Your task to perform on an android device: Open internet settings Image 0: 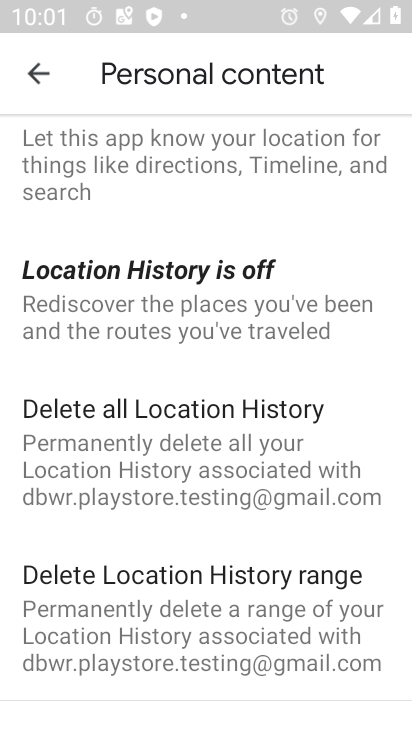
Step 0: click (24, 76)
Your task to perform on an android device: Open internet settings Image 1: 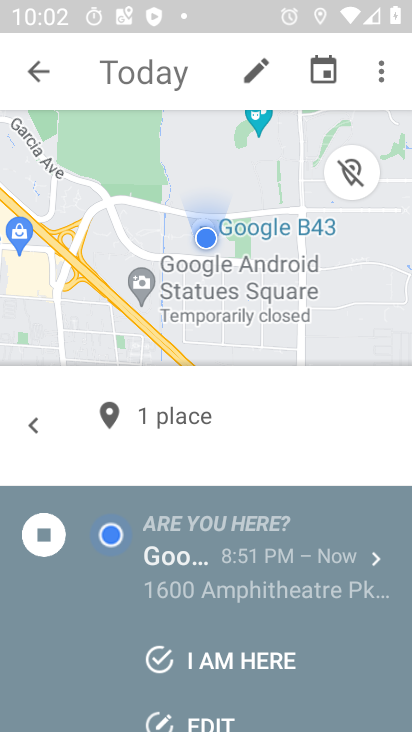
Step 1: press back button
Your task to perform on an android device: Open internet settings Image 2: 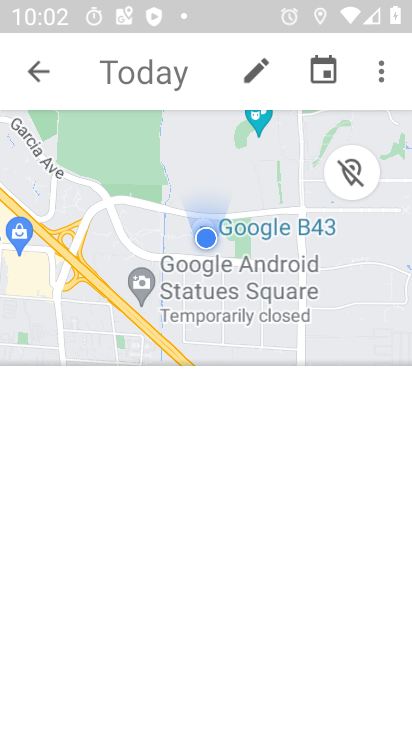
Step 2: press back button
Your task to perform on an android device: Open internet settings Image 3: 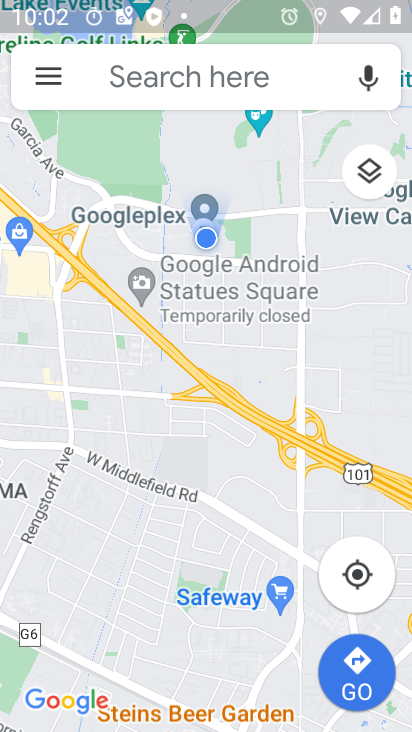
Step 3: press back button
Your task to perform on an android device: Open internet settings Image 4: 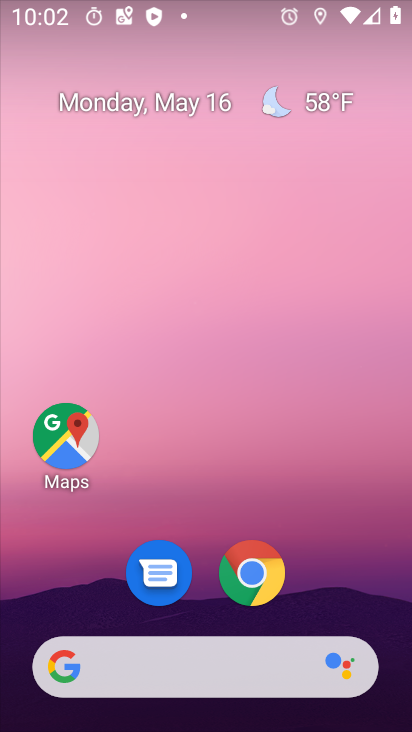
Step 4: drag from (286, 613) to (222, 134)
Your task to perform on an android device: Open internet settings Image 5: 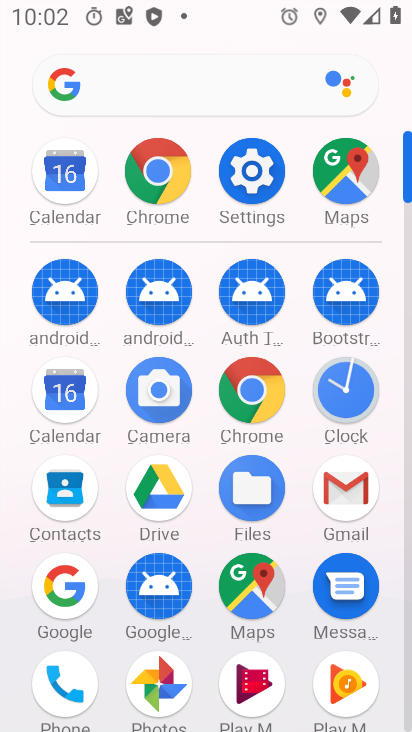
Step 5: click (245, 168)
Your task to perform on an android device: Open internet settings Image 6: 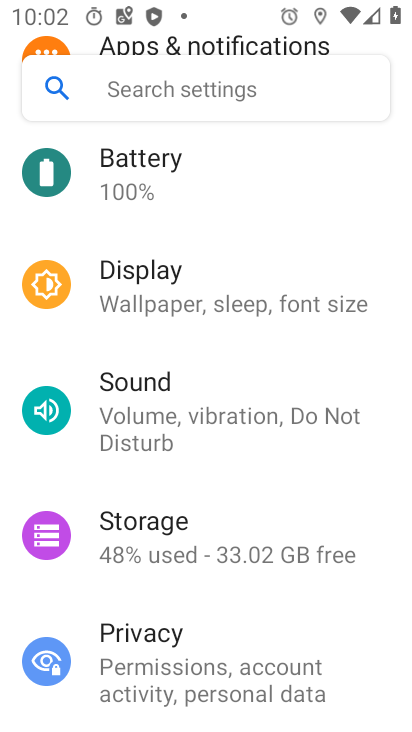
Step 6: drag from (225, 159) to (328, 650)
Your task to perform on an android device: Open internet settings Image 7: 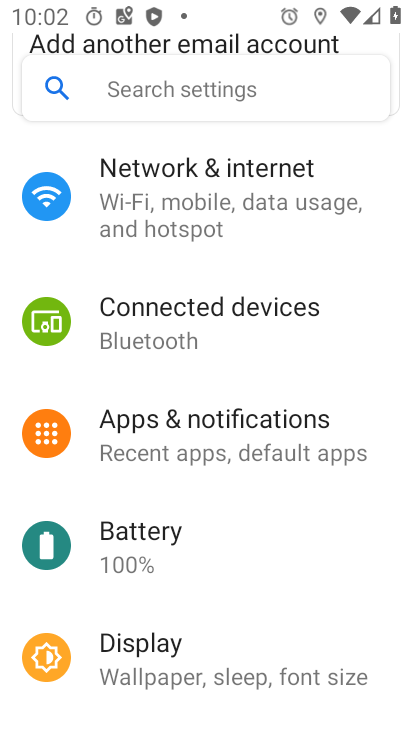
Step 7: click (239, 197)
Your task to perform on an android device: Open internet settings Image 8: 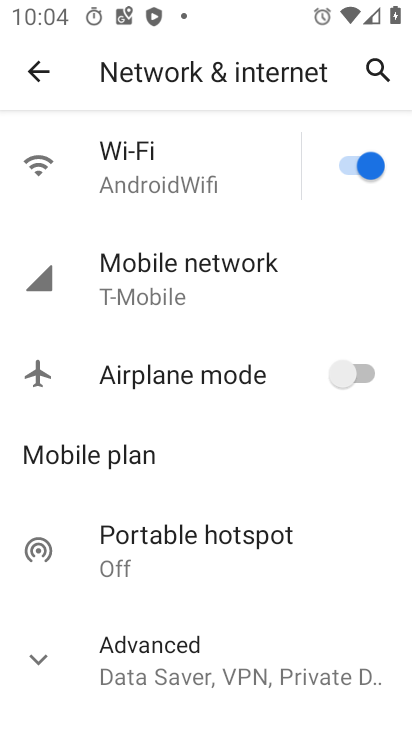
Step 8: drag from (337, 642) to (210, 57)
Your task to perform on an android device: Open internet settings Image 9: 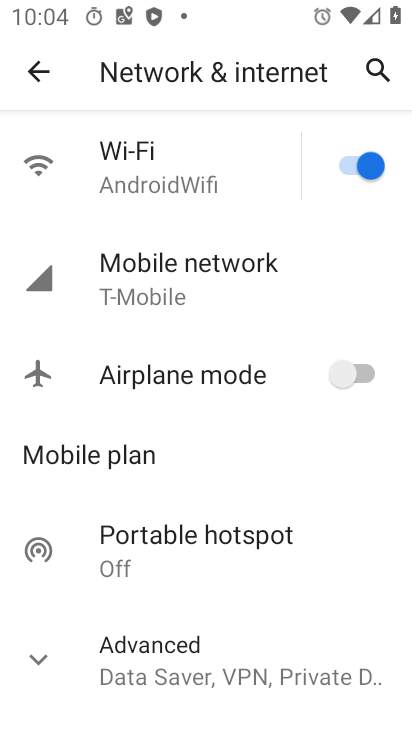
Step 9: press back button
Your task to perform on an android device: Open internet settings Image 10: 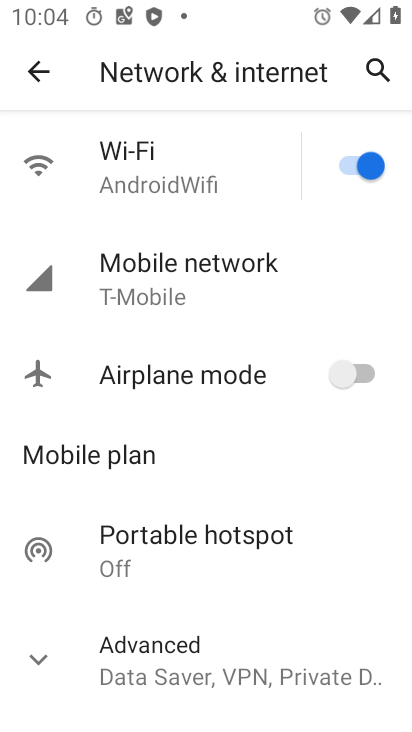
Step 10: press back button
Your task to perform on an android device: Open internet settings Image 11: 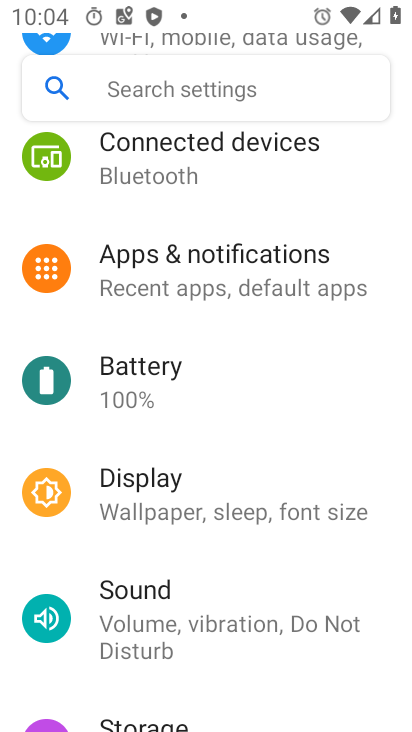
Step 11: press back button
Your task to perform on an android device: Open internet settings Image 12: 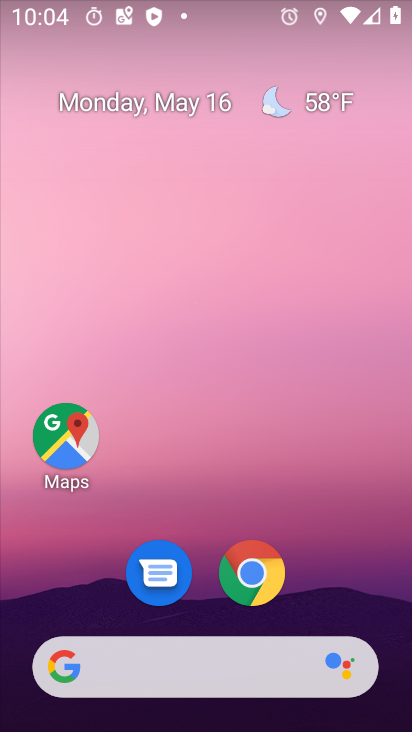
Step 12: drag from (291, 557) to (126, 98)
Your task to perform on an android device: Open internet settings Image 13: 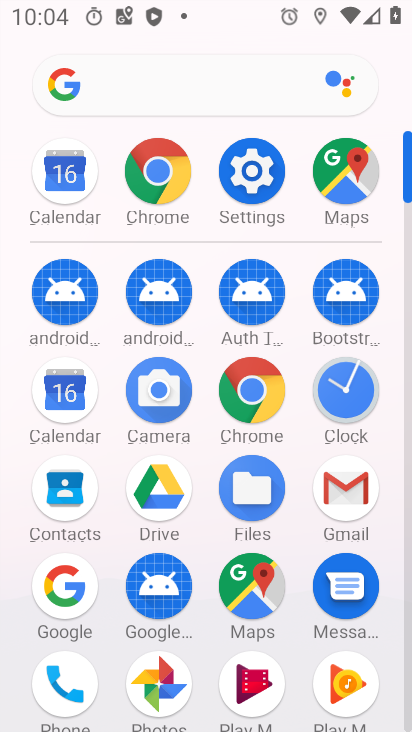
Step 13: click (235, 163)
Your task to perform on an android device: Open internet settings Image 14: 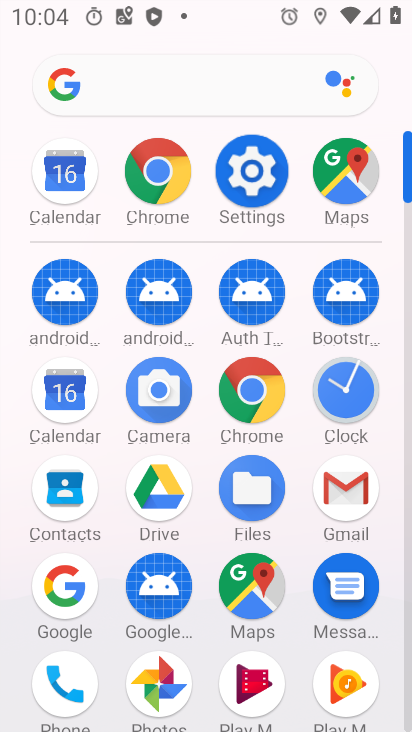
Step 14: click (235, 163)
Your task to perform on an android device: Open internet settings Image 15: 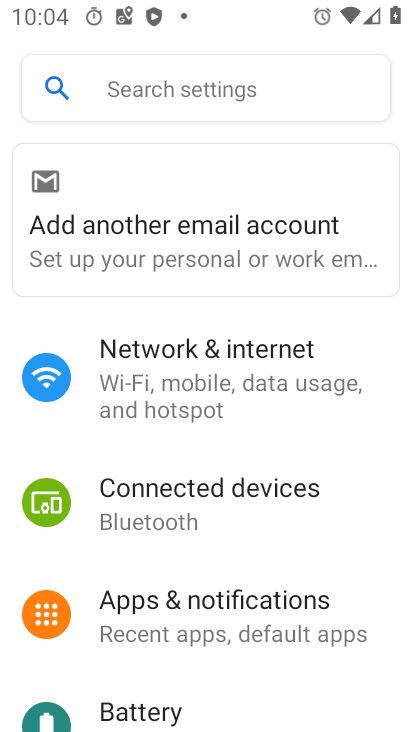
Step 15: click (239, 373)
Your task to perform on an android device: Open internet settings Image 16: 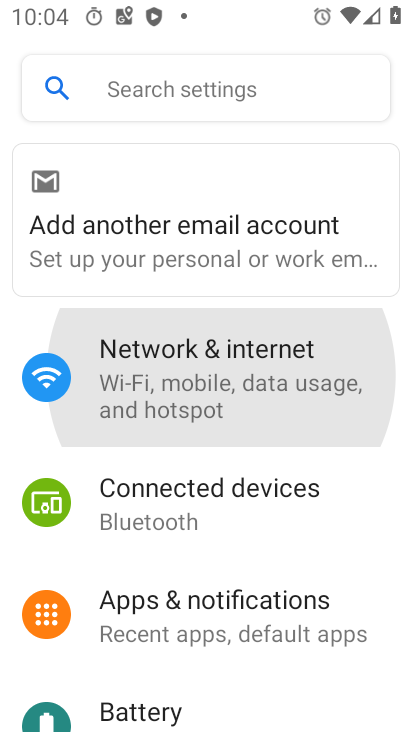
Step 16: click (233, 375)
Your task to perform on an android device: Open internet settings Image 17: 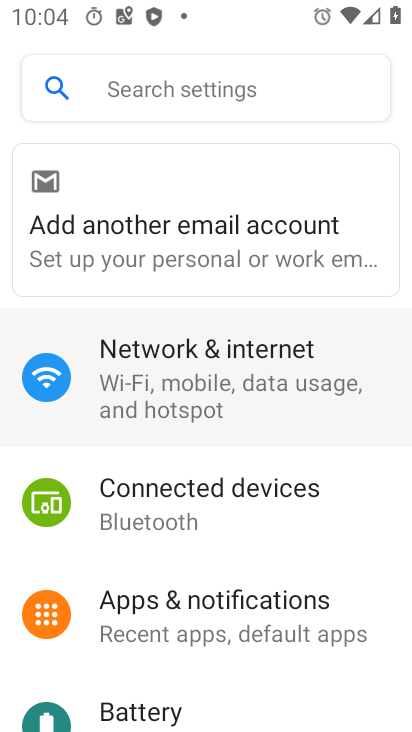
Step 17: click (232, 375)
Your task to perform on an android device: Open internet settings Image 18: 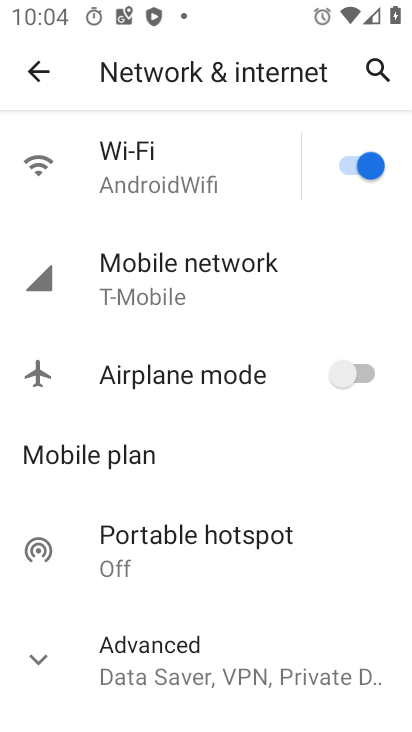
Step 18: task complete